Your task to perform on an android device: turn on airplane mode Image 0: 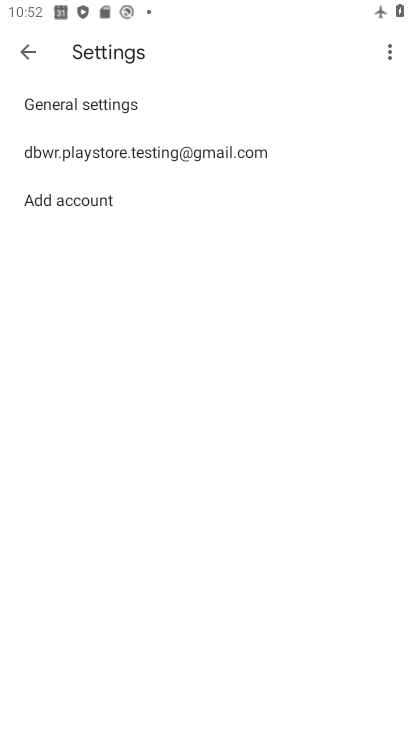
Step 0: press home button
Your task to perform on an android device: turn on airplane mode Image 1: 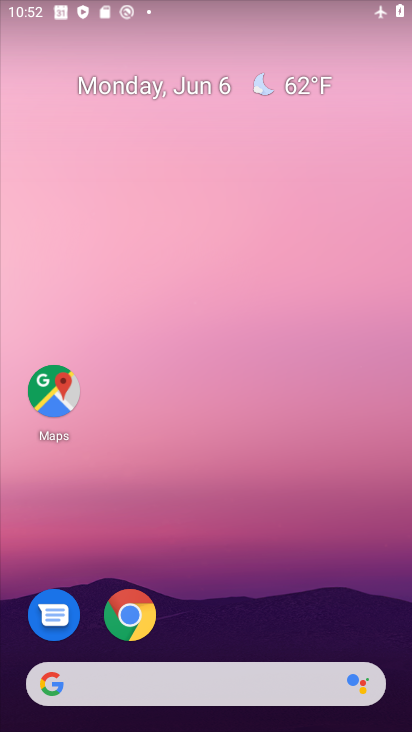
Step 1: drag from (168, 672) to (131, 195)
Your task to perform on an android device: turn on airplane mode Image 2: 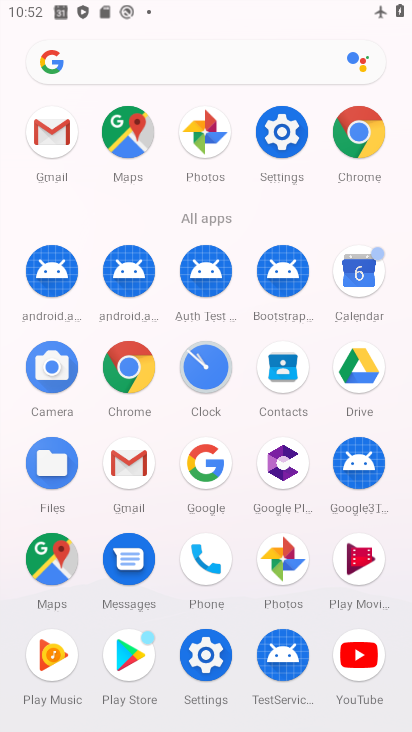
Step 2: click (268, 133)
Your task to perform on an android device: turn on airplane mode Image 3: 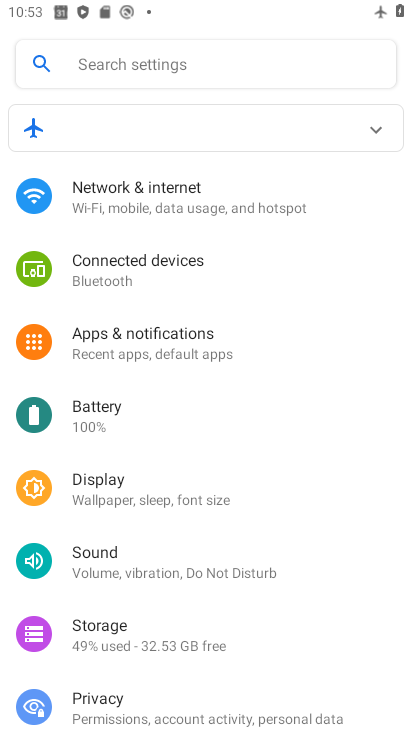
Step 3: click (124, 222)
Your task to perform on an android device: turn on airplane mode Image 4: 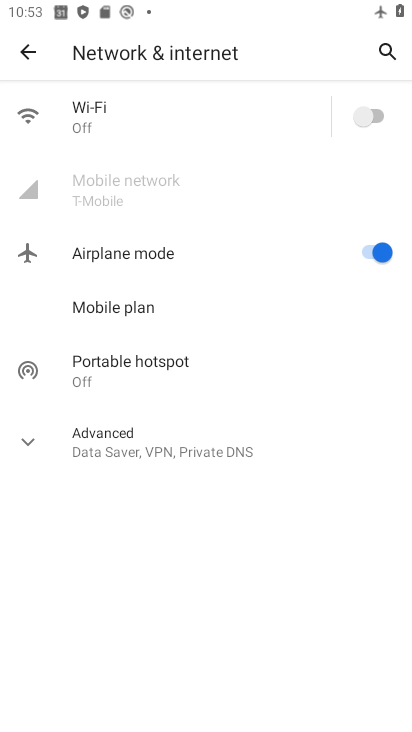
Step 4: task complete